Your task to perform on an android device: Find coffee shops on Maps Image 0: 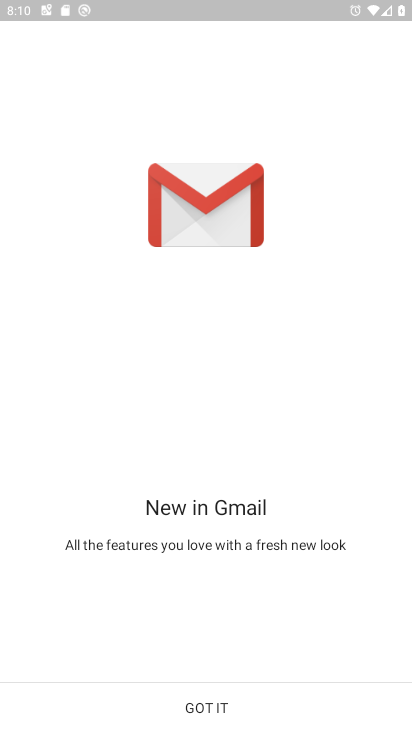
Step 0: press home button
Your task to perform on an android device: Find coffee shops on Maps Image 1: 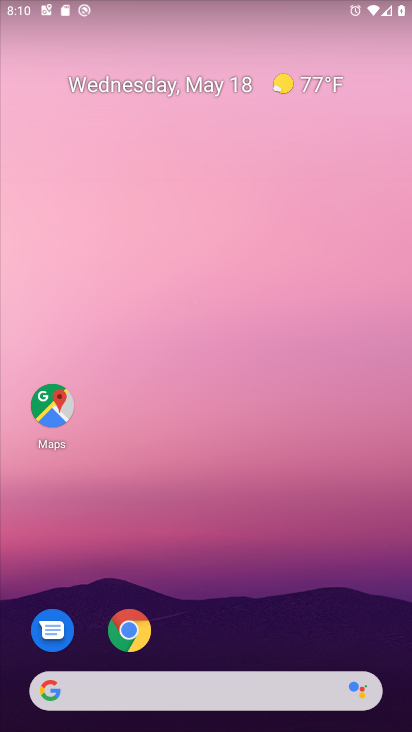
Step 1: click (46, 415)
Your task to perform on an android device: Find coffee shops on Maps Image 2: 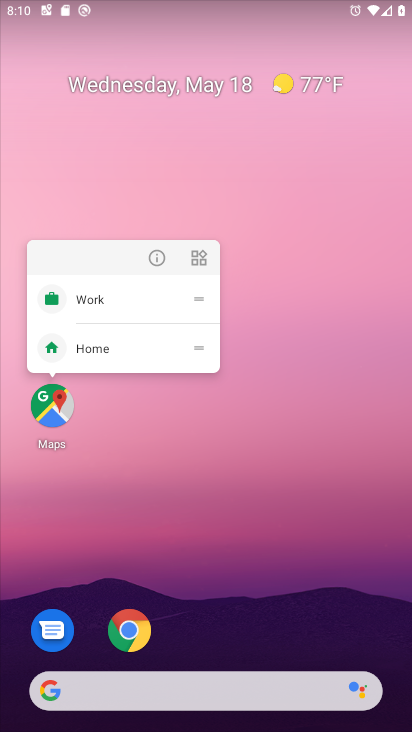
Step 2: click (46, 415)
Your task to perform on an android device: Find coffee shops on Maps Image 3: 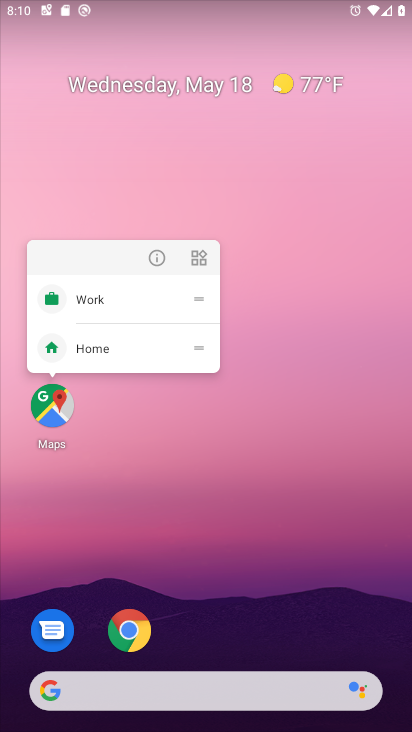
Step 3: click (58, 425)
Your task to perform on an android device: Find coffee shops on Maps Image 4: 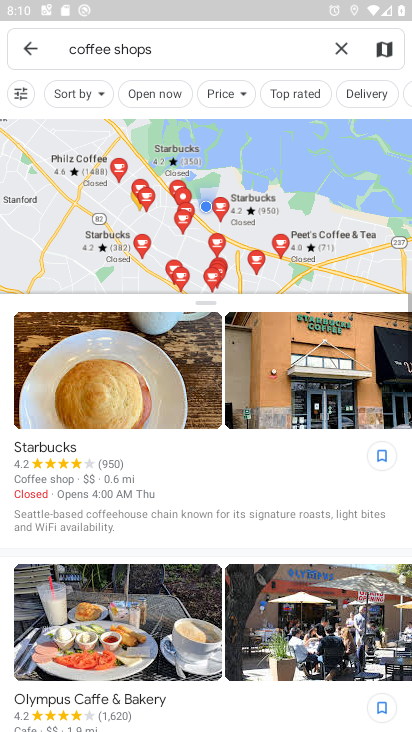
Step 4: drag from (239, 528) to (381, 512)
Your task to perform on an android device: Find coffee shops on Maps Image 5: 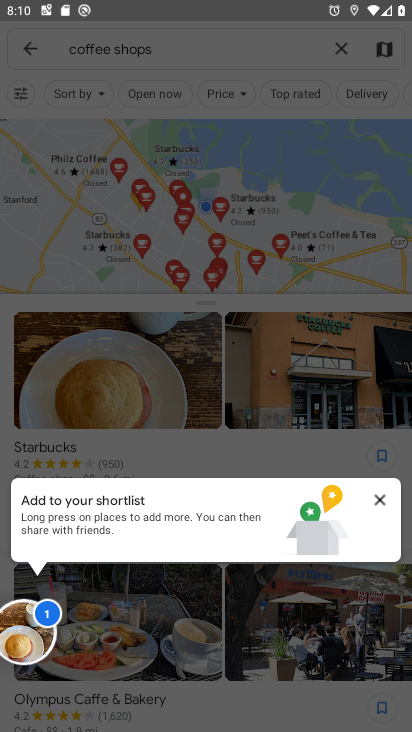
Step 5: click (383, 497)
Your task to perform on an android device: Find coffee shops on Maps Image 6: 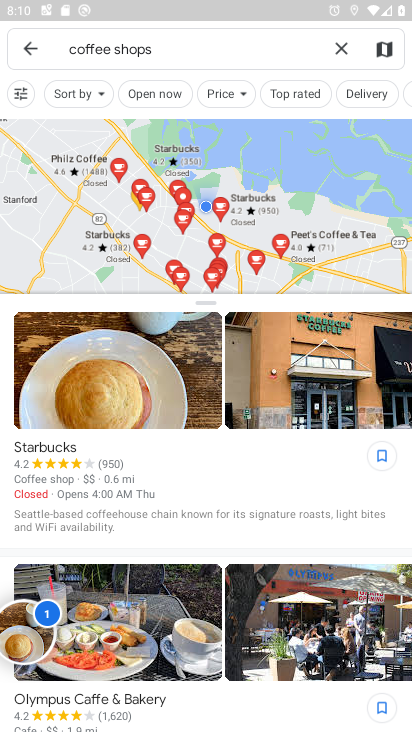
Step 6: task complete